Your task to perform on an android device: Open the stopwatch Image 0: 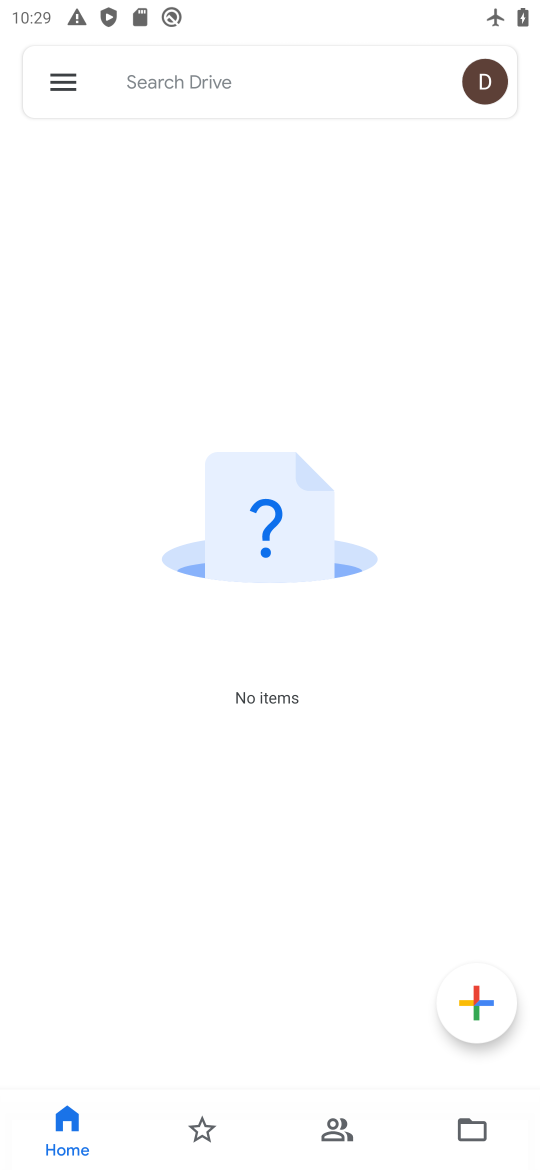
Step 0: press home button
Your task to perform on an android device: Open the stopwatch Image 1: 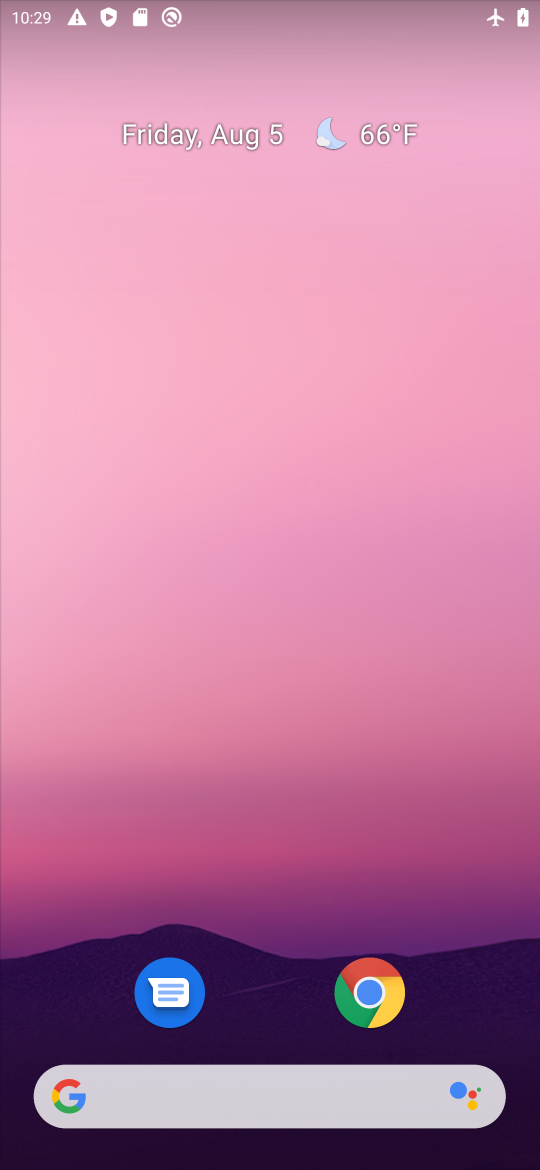
Step 1: drag from (273, 1068) to (378, 274)
Your task to perform on an android device: Open the stopwatch Image 2: 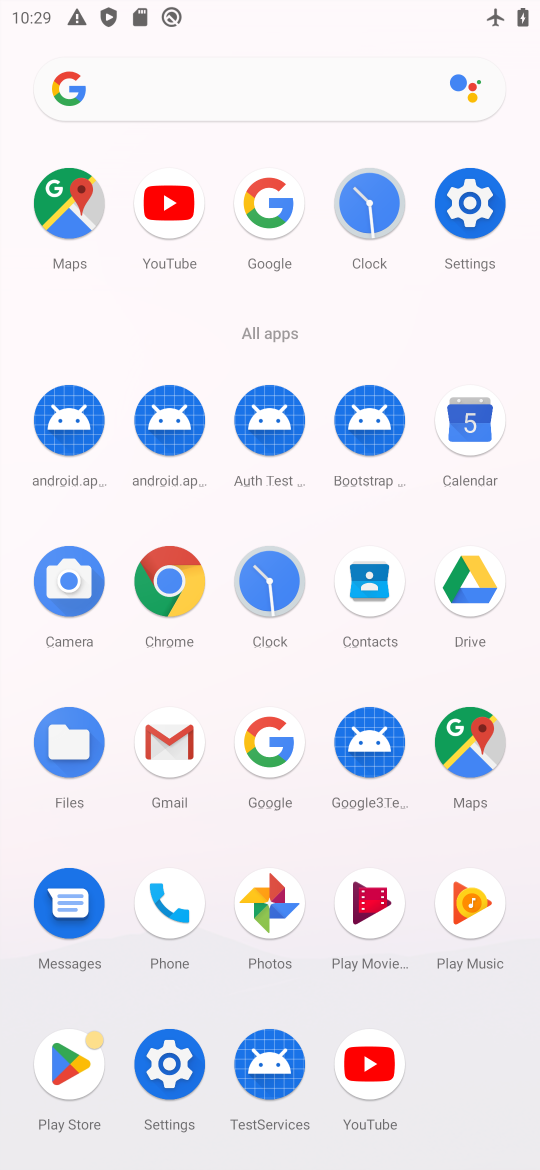
Step 2: click (279, 609)
Your task to perform on an android device: Open the stopwatch Image 3: 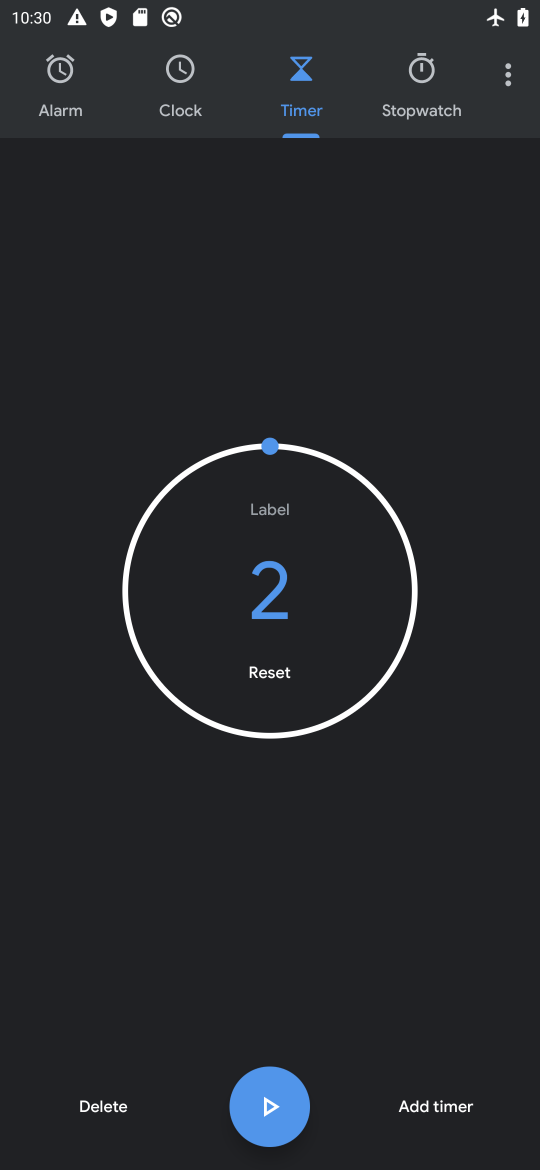
Step 3: click (420, 102)
Your task to perform on an android device: Open the stopwatch Image 4: 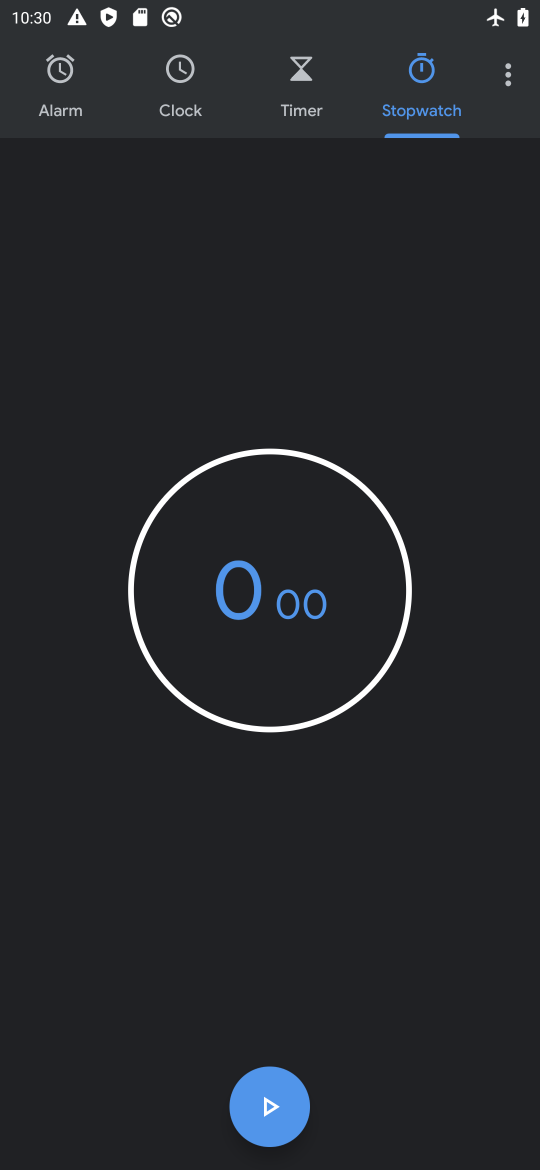
Step 4: task complete